Your task to perform on an android device: choose inbox layout in the gmail app Image 0: 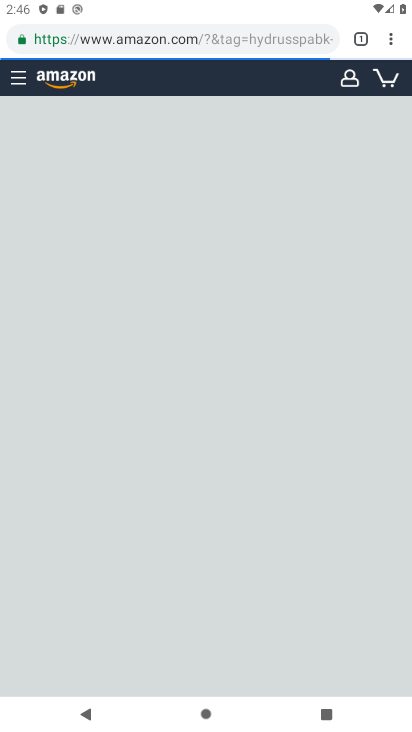
Step 0: press home button
Your task to perform on an android device: choose inbox layout in the gmail app Image 1: 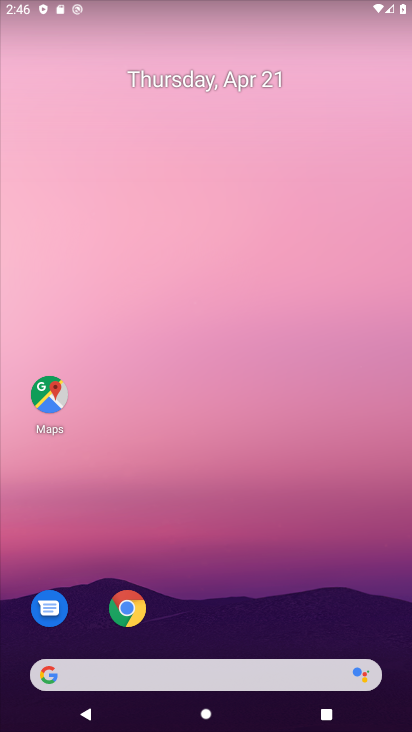
Step 1: drag from (247, 616) to (222, 80)
Your task to perform on an android device: choose inbox layout in the gmail app Image 2: 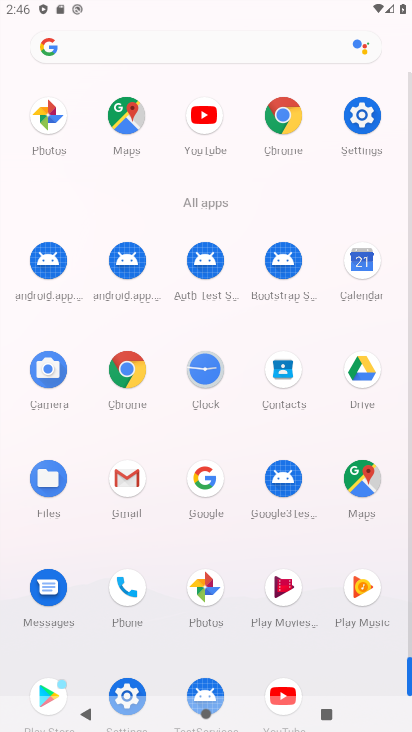
Step 2: click (122, 485)
Your task to perform on an android device: choose inbox layout in the gmail app Image 3: 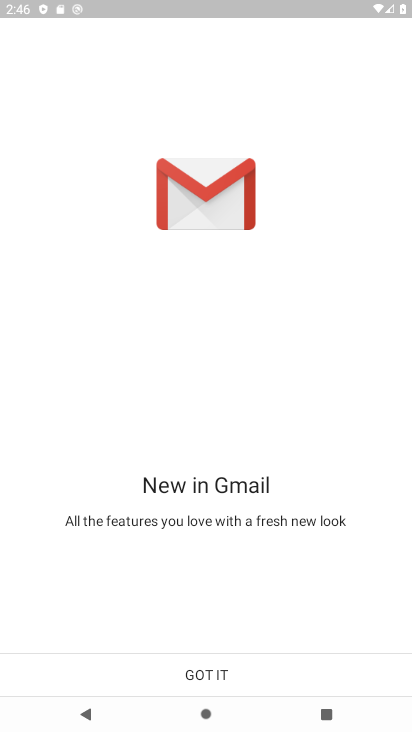
Step 3: click (162, 657)
Your task to perform on an android device: choose inbox layout in the gmail app Image 4: 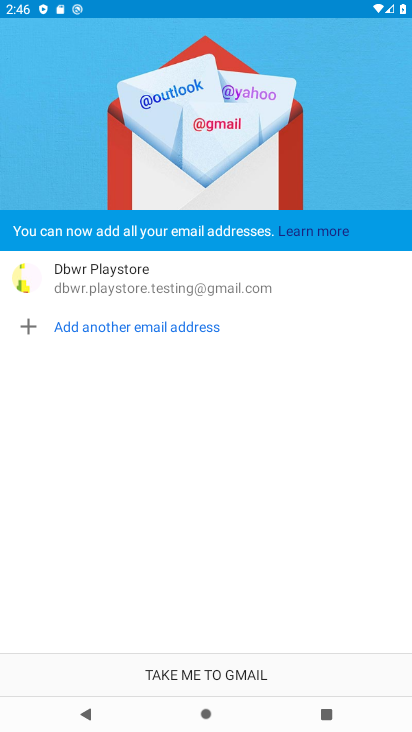
Step 4: click (152, 659)
Your task to perform on an android device: choose inbox layout in the gmail app Image 5: 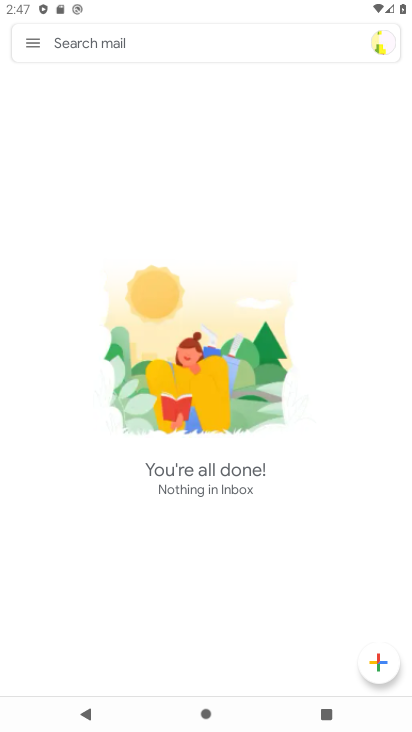
Step 5: click (30, 45)
Your task to perform on an android device: choose inbox layout in the gmail app Image 6: 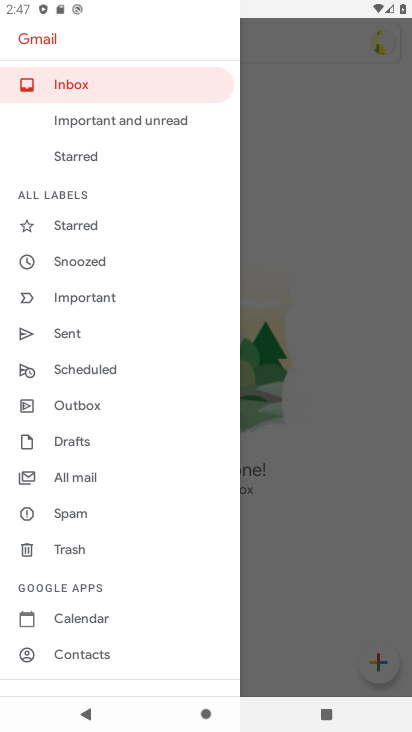
Step 6: drag from (73, 608) to (99, 440)
Your task to perform on an android device: choose inbox layout in the gmail app Image 7: 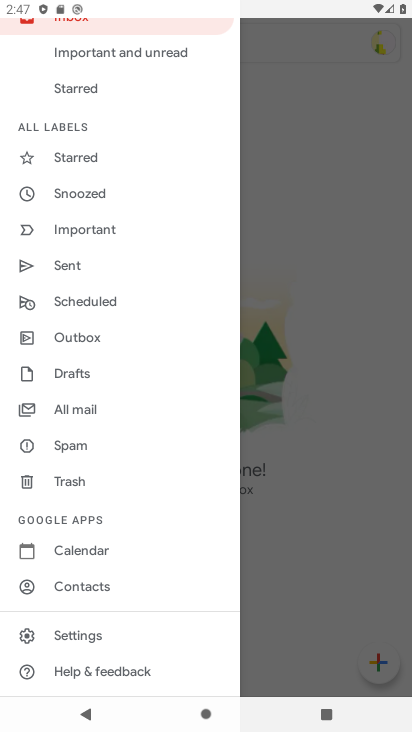
Step 7: click (77, 637)
Your task to perform on an android device: choose inbox layout in the gmail app Image 8: 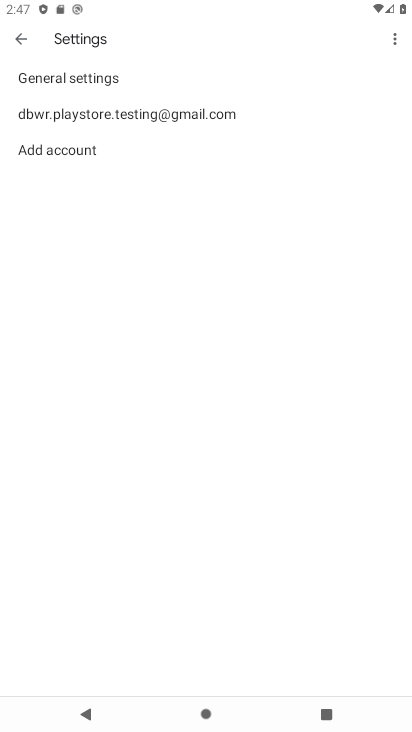
Step 8: click (175, 115)
Your task to perform on an android device: choose inbox layout in the gmail app Image 9: 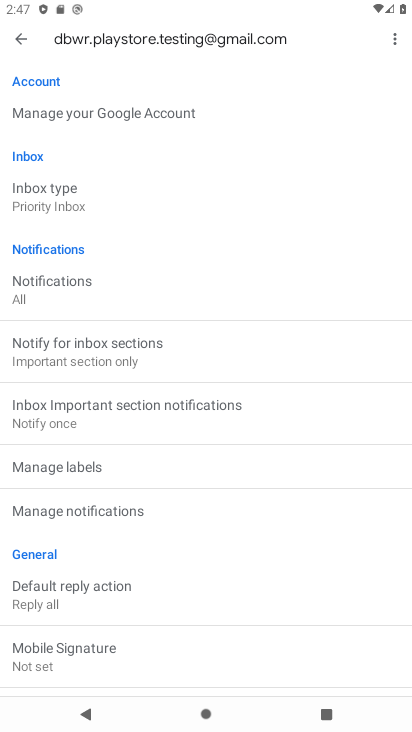
Step 9: task complete